Your task to perform on an android device: Go to Google maps Image 0: 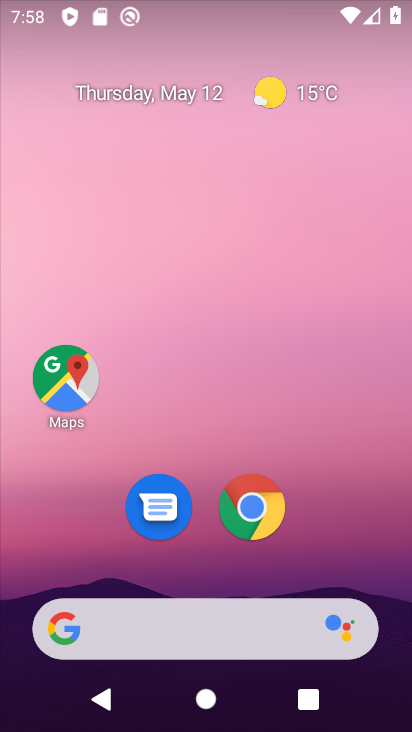
Step 0: drag from (211, 575) to (201, 135)
Your task to perform on an android device: Go to Google maps Image 1: 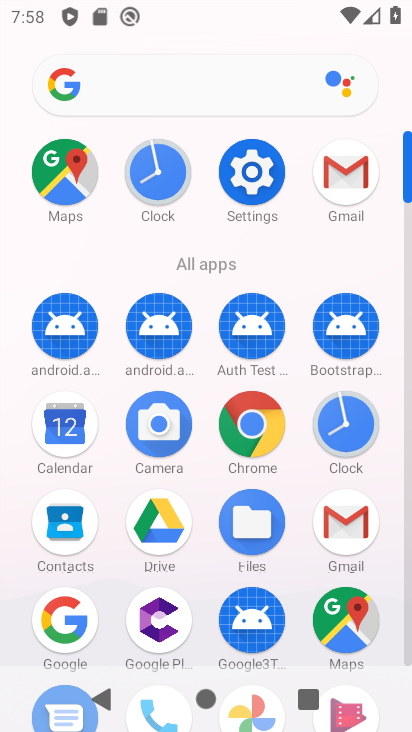
Step 1: click (331, 622)
Your task to perform on an android device: Go to Google maps Image 2: 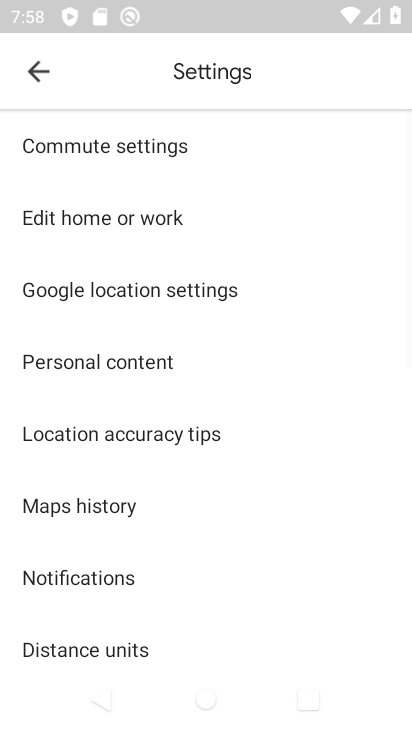
Step 2: click (49, 68)
Your task to perform on an android device: Go to Google maps Image 3: 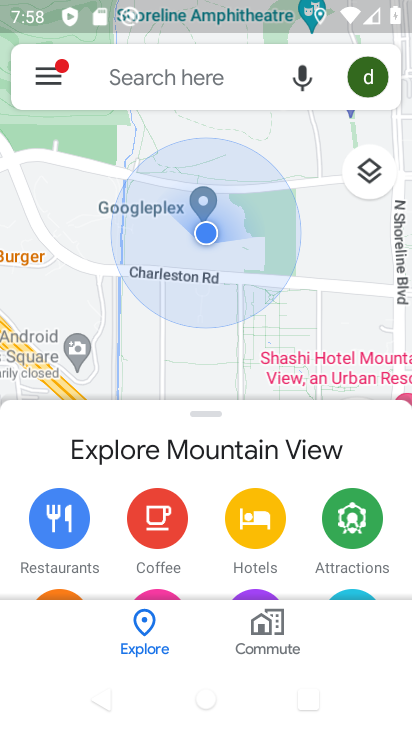
Step 3: task complete